Your task to perform on an android device: toggle data saver in the chrome app Image 0: 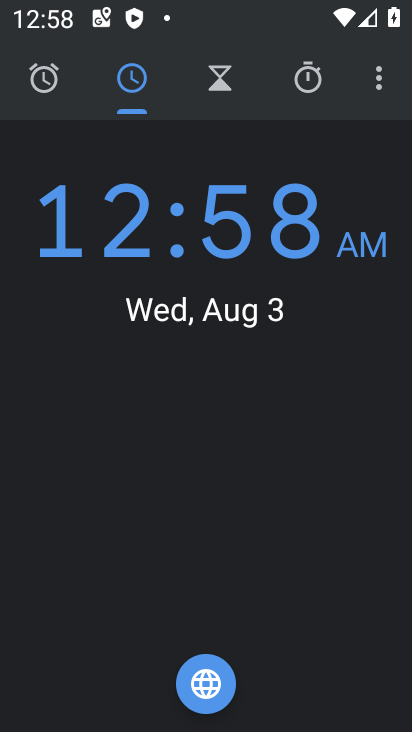
Step 0: press home button
Your task to perform on an android device: toggle data saver in the chrome app Image 1: 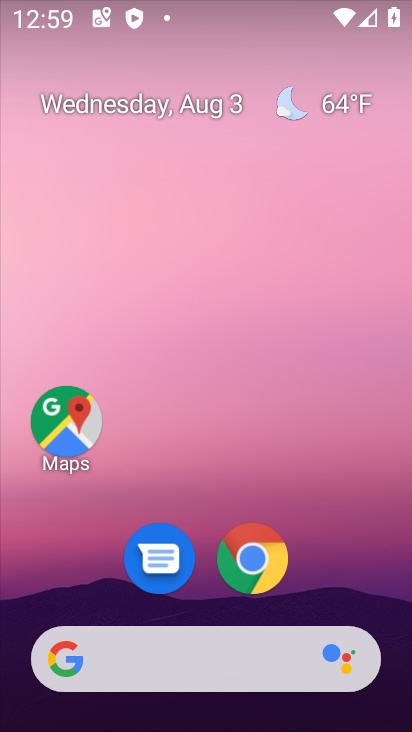
Step 1: click (264, 561)
Your task to perform on an android device: toggle data saver in the chrome app Image 2: 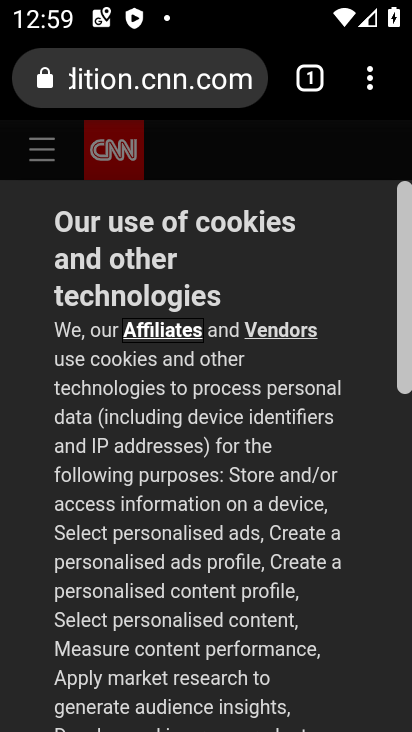
Step 2: click (385, 89)
Your task to perform on an android device: toggle data saver in the chrome app Image 3: 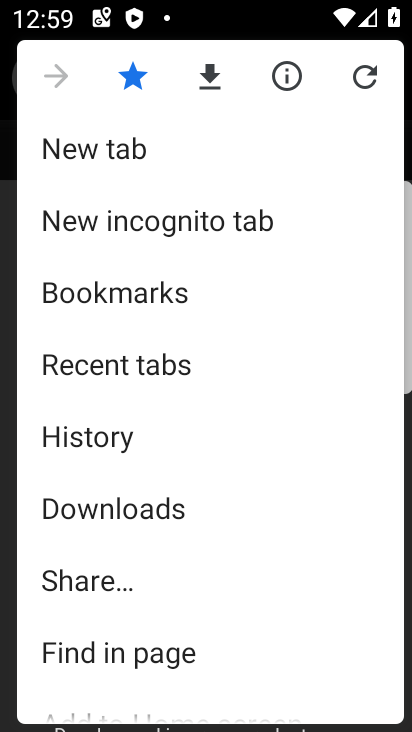
Step 3: press back button
Your task to perform on an android device: toggle data saver in the chrome app Image 4: 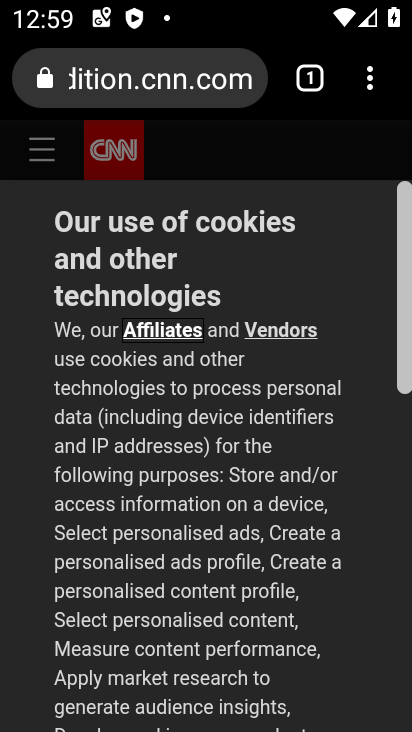
Step 4: click (372, 86)
Your task to perform on an android device: toggle data saver in the chrome app Image 5: 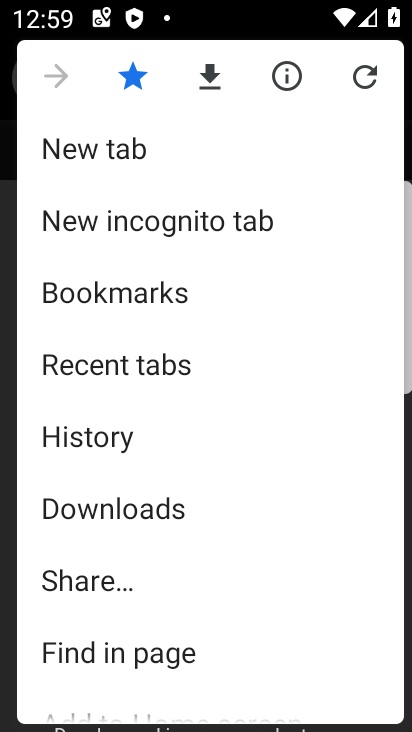
Step 5: drag from (288, 601) to (255, 344)
Your task to perform on an android device: toggle data saver in the chrome app Image 6: 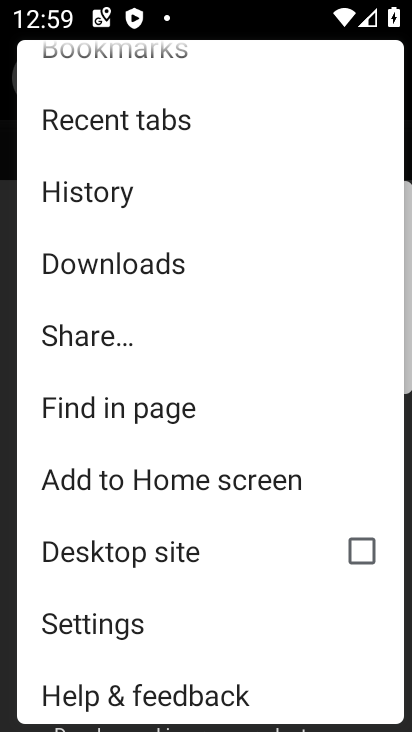
Step 6: click (139, 634)
Your task to perform on an android device: toggle data saver in the chrome app Image 7: 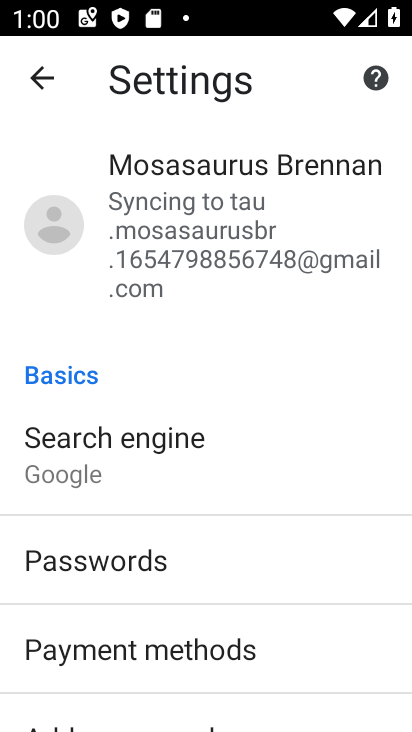
Step 7: drag from (342, 586) to (273, 215)
Your task to perform on an android device: toggle data saver in the chrome app Image 8: 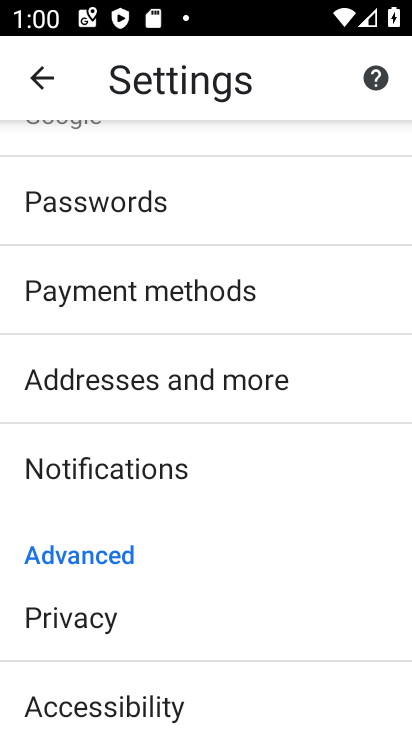
Step 8: drag from (286, 689) to (246, 216)
Your task to perform on an android device: toggle data saver in the chrome app Image 9: 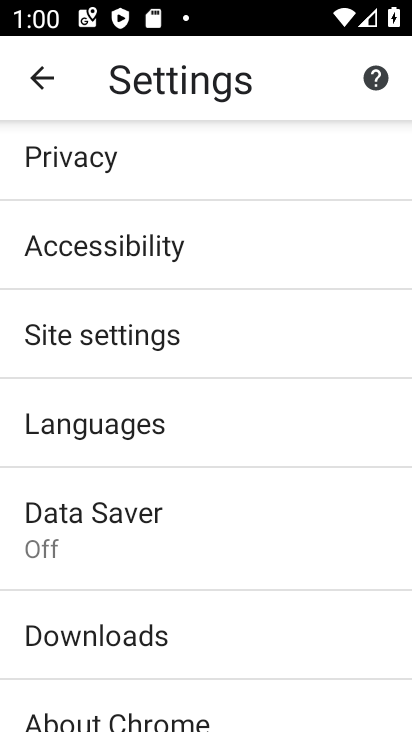
Step 9: click (173, 552)
Your task to perform on an android device: toggle data saver in the chrome app Image 10: 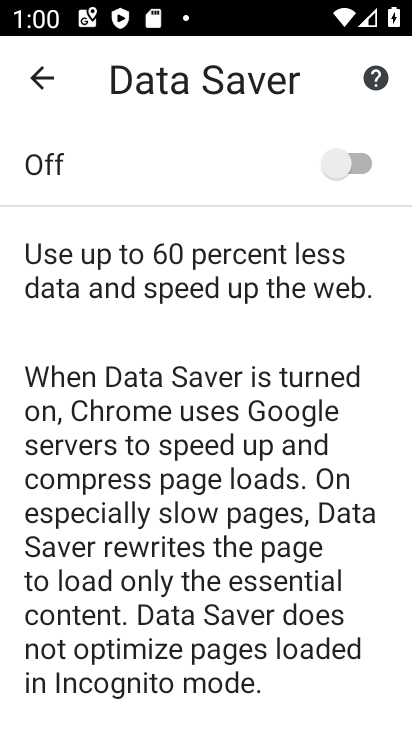
Step 10: click (343, 164)
Your task to perform on an android device: toggle data saver in the chrome app Image 11: 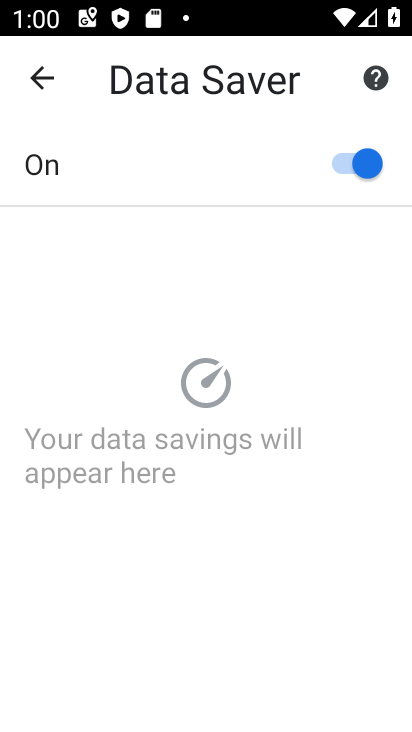
Step 11: task complete